Your task to perform on an android device: Search for "bose soundlink mini" on bestbuy, select the first entry, add it to the cart, then select checkout. Image 0: 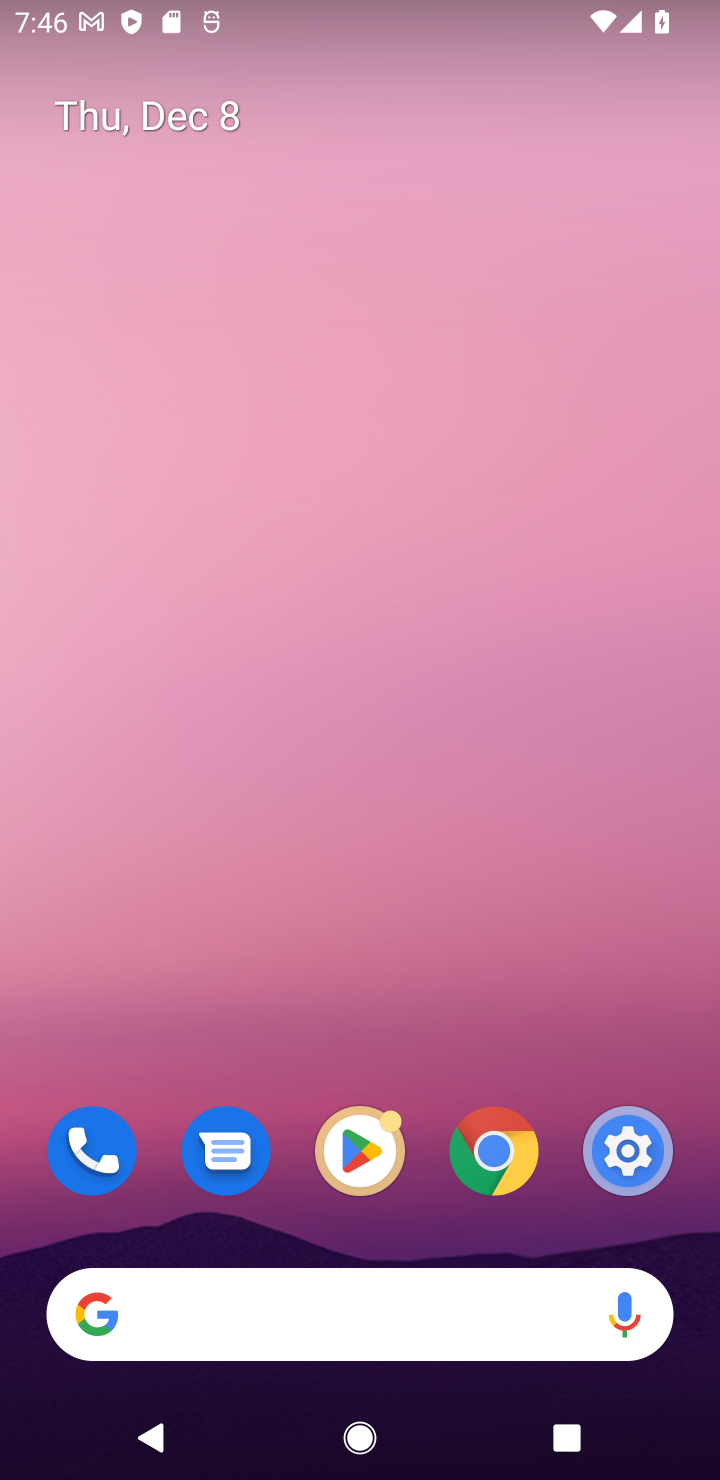
Step 0: task complete